Your task to perform on an android device: turn off notifications in google photos Image 0: 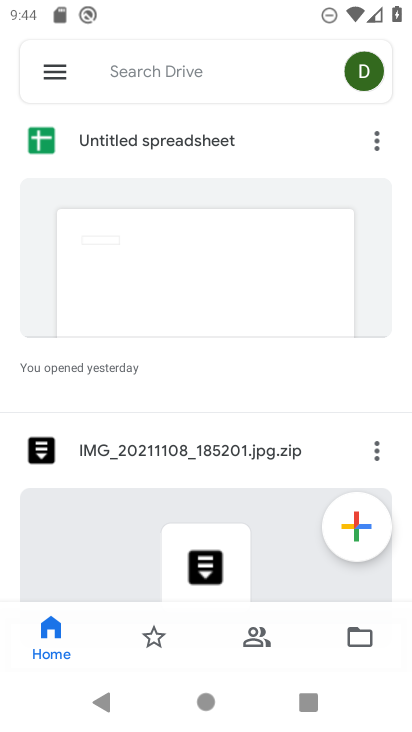
Step 0: press home button
Your task to perform on an android device: turn off notifications in google photos Image 1: 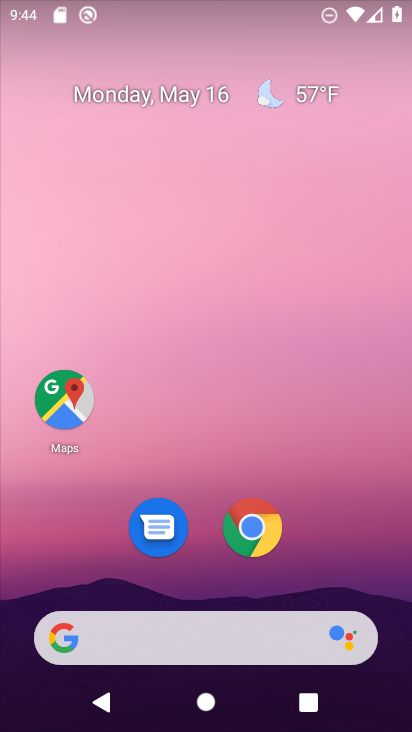
Step 1: drag from (403, 696) to (348, 283)
Your task to perform on an android device: turn off notifications in google photos Image 2: 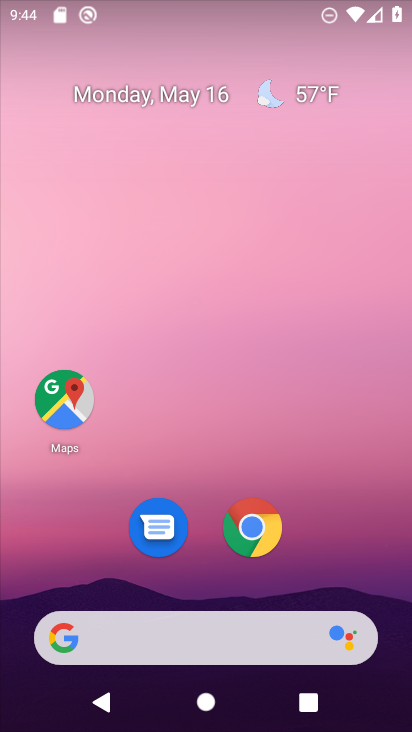
Step 2: drag from (401, 261) to (399, 187)
Your task to perform on an android device: turn off notifications in google photos Image 3: 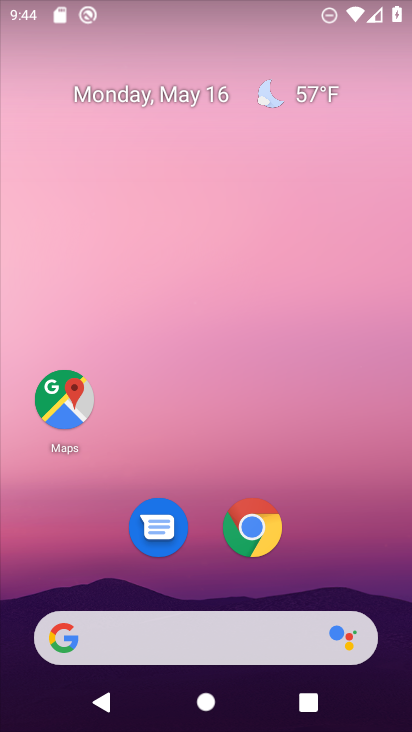
Step 3: drag from (390, 684) to (390, 352)
Your task to perform on an android device: turn off notifications in google photos Image 4: 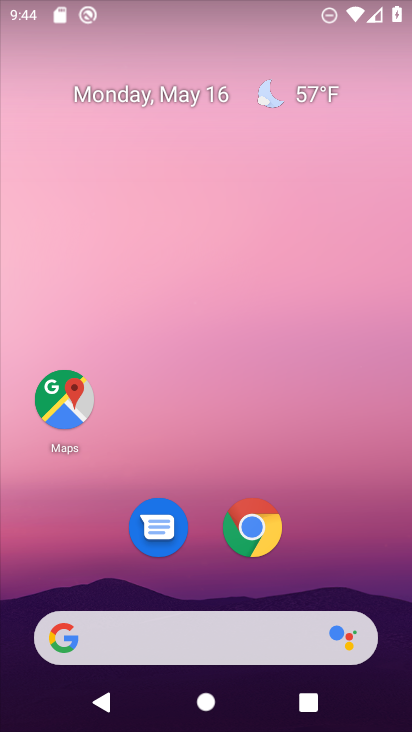
Step 4: drag from (399, 634) to (390, 249)
Your task to perform on an android device: turn off notifications in google photos Image 5: 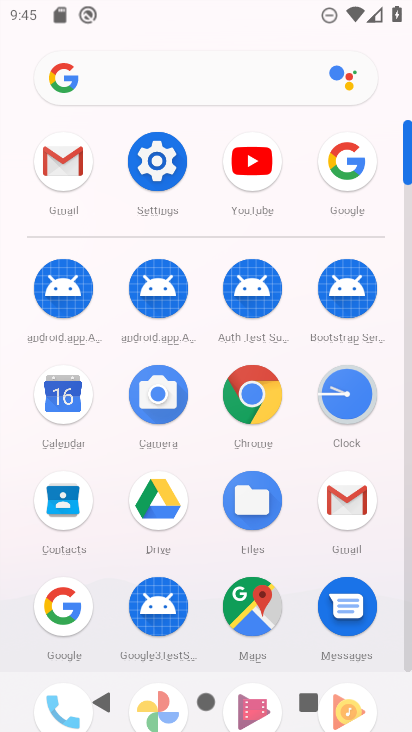
Step 5: click (407, 123)
Your task to perform on an android device: turn off notifications in google photos Image 6: 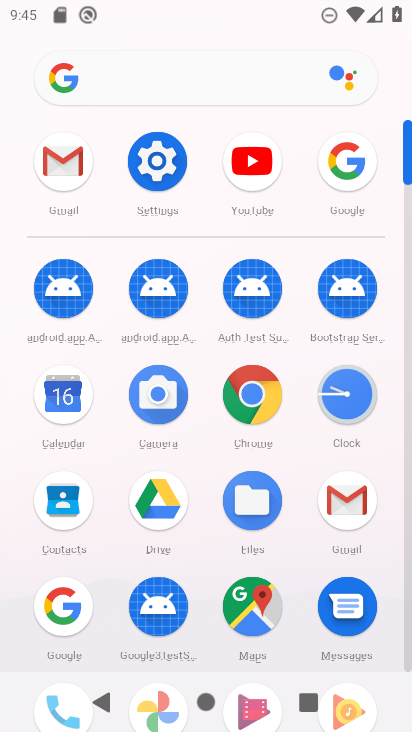
Step 6: click (406, 139)
Your task to perform on an android device: turn off notifications in google photos Image 7: 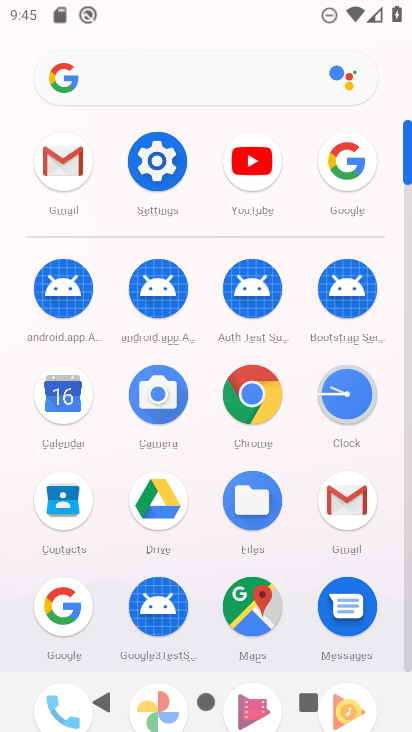
Step 7: click (408, 124)
Your task to perform on an android device: turn off notifications in google photos Image 8: 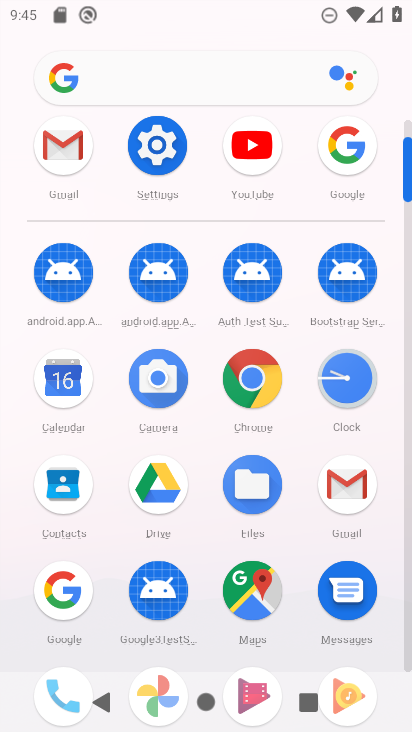
Step 8: click (407, 138)
Your task to perform on an android device: turn off notifications in google photos Image 9: 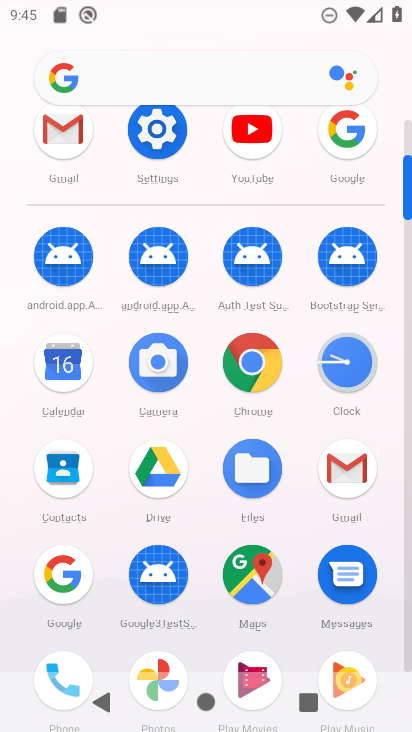
Step 9: click (154, 670)
Your task to perform on an android device: turn off notifications in google photos Image 10: 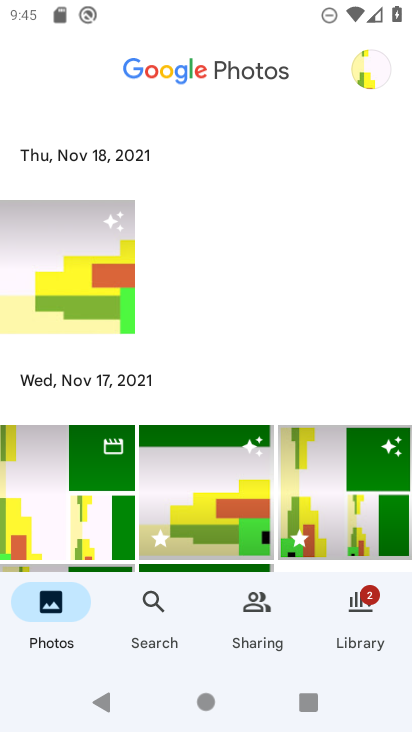
Step 10: click (376, 63)
Your task to perform on an android device: turn off notifications in google photos Image 11: 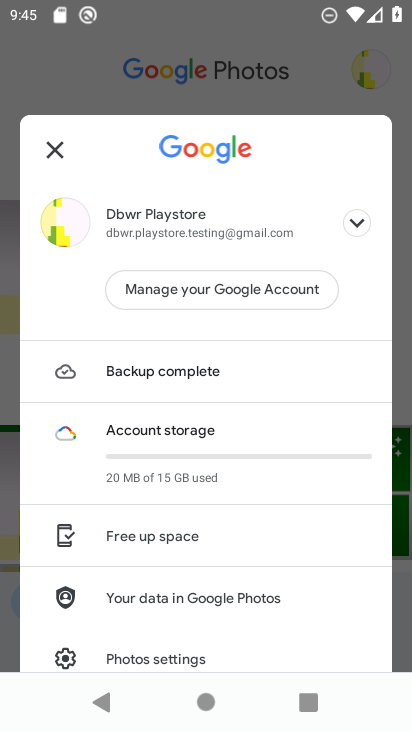
Step 11: drag from (270, 634) to (288, 437)
Your task to perform on an android device: turn off notifications in google photos Image 12: 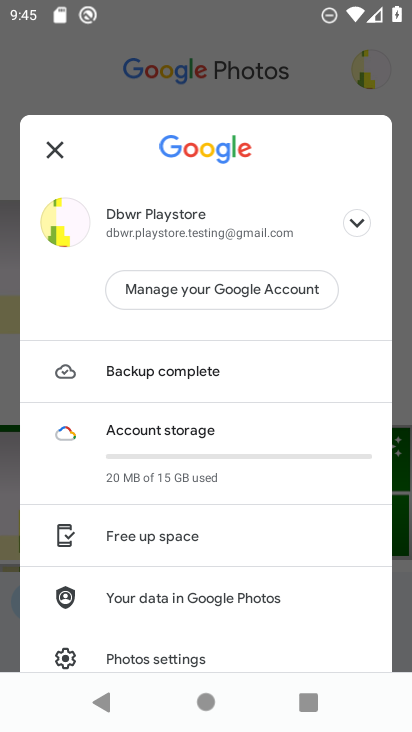
Step 12: drag from (245, 630) to (272, 379)
Your task to perform on an android device: turn off notifications in google photos Image 13: 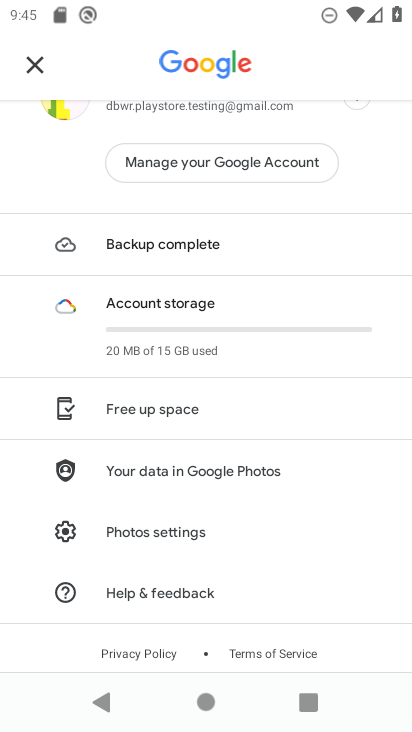
Step 13: click (66, 532)
Your task to perform on an android device: turn off notifications in google photos Image 14: 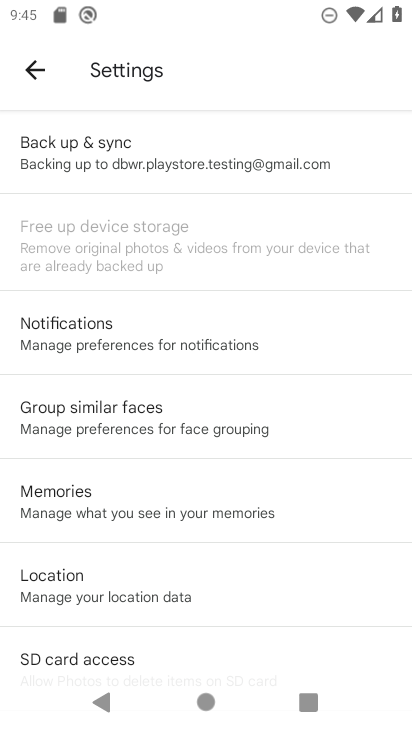
Step 14: click (67, 314)
Your task to perform on an android device: turn off notifications in google photos Image 15: 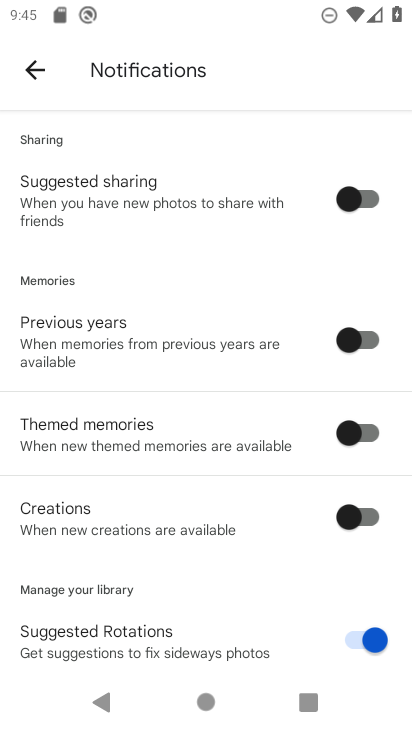
Step 15: task complete